Your task to perform on an android device: Go to sound settings Image 0: 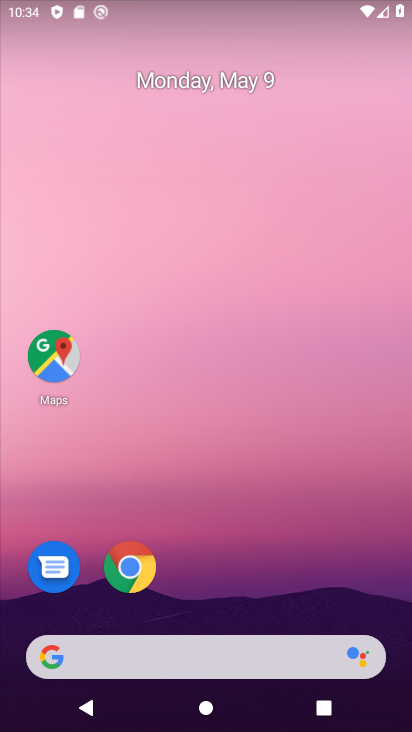
Step 0: drag from (341, 618) to (204, 4)
Your task to perform on an android device: Go to sound settings Image 1: 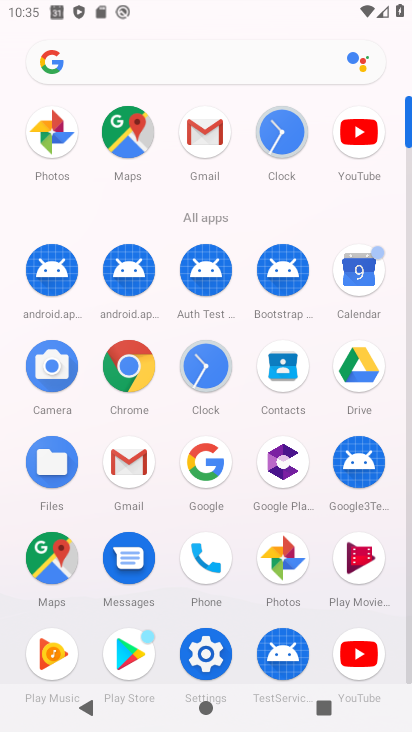
Step 1: click (216, 636)
Your task to perform on an android device: Go to sound settings Image 2: 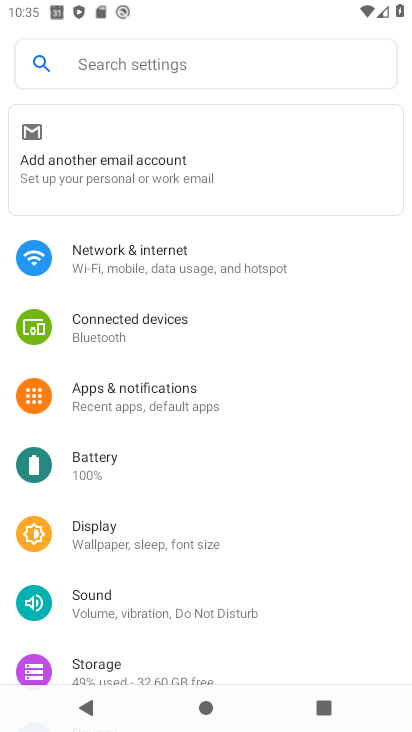
Step 2: click (136, 603)
Your task to perform on an android device: Go to sound settings Image 3: 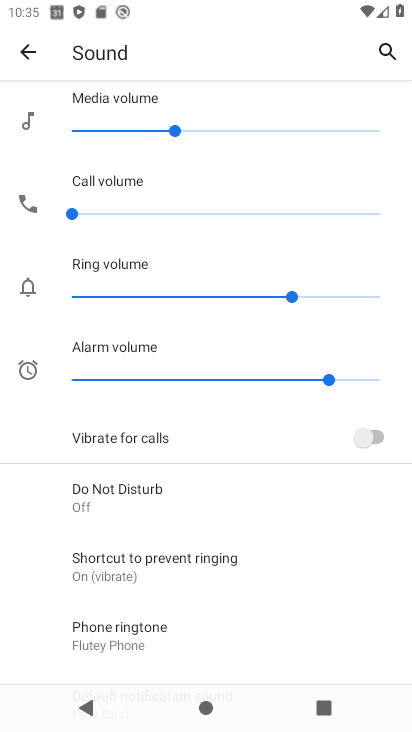
Step 3: task complete